Your task to perform on an android device: all mails in gmail Image 0: 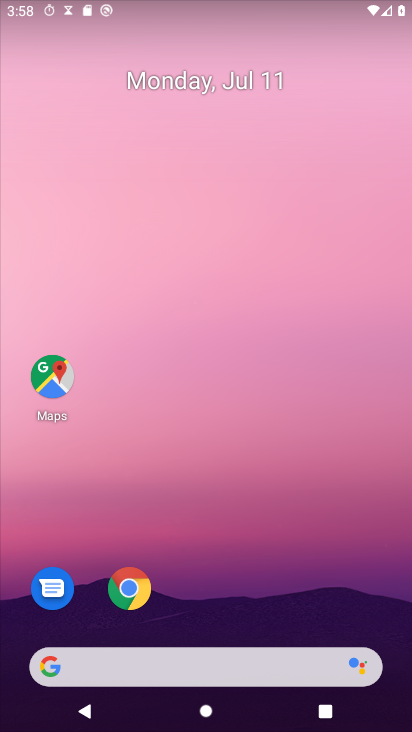
Step 0: drag from (268, 581) to (234, 42)
Your task to perform on an android device: all mails in gmail Image 1: 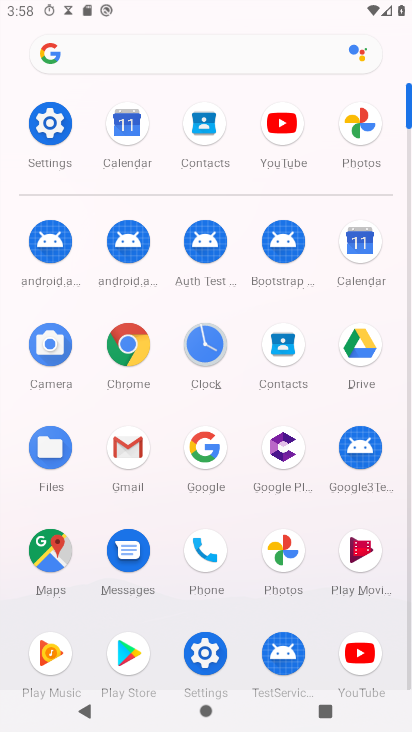
Step 1: click (125, 450)
Your task to perform on an android device: all mails in gmail Image 2: 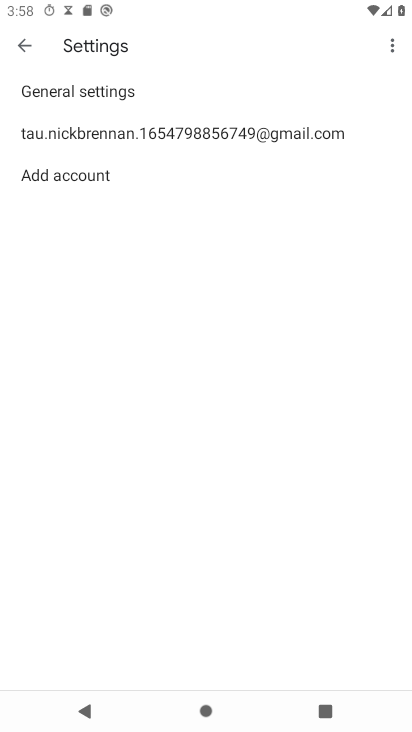
Step 2: click (27, 41)
Your task to perform on an android device: all mails in gmail Image 3: 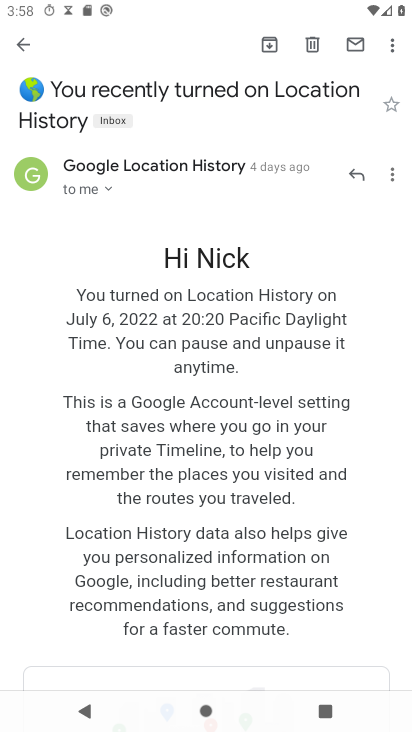
Step 3: click (31, 47)
Your task to perform on an android device: all mails in gmail Image 4: 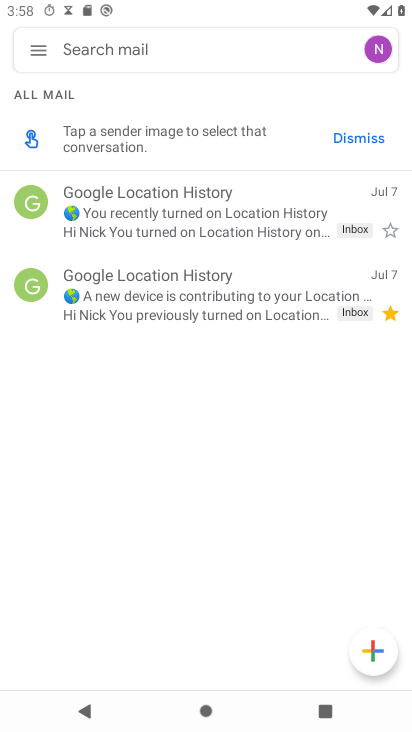
Step 4: click (41, 50)
Your task to perform on an android device: all mails in gmail Image 5: 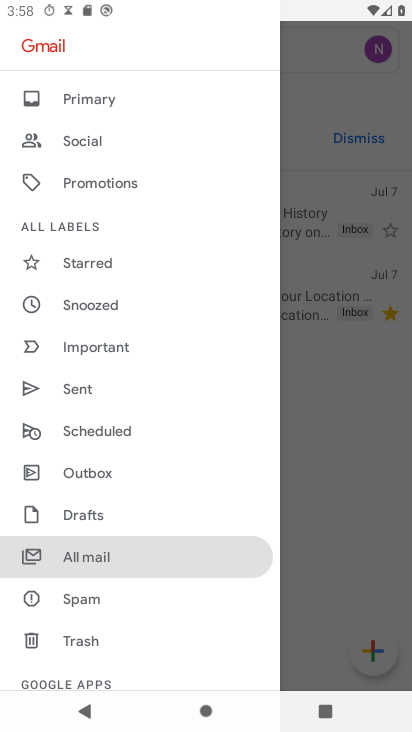
Step 5: click (109, 559)
Your task to perform on an android device: all mails in gmail Image 6: 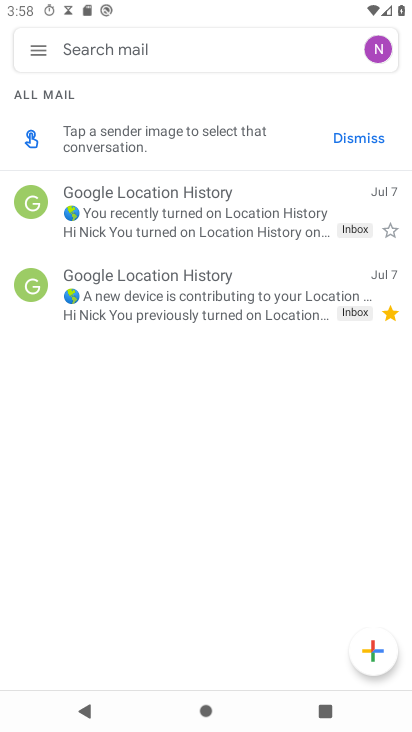
Step 6: task complete